Your task to perform on an android device: Go to calendar. Show me events next week Image 0: 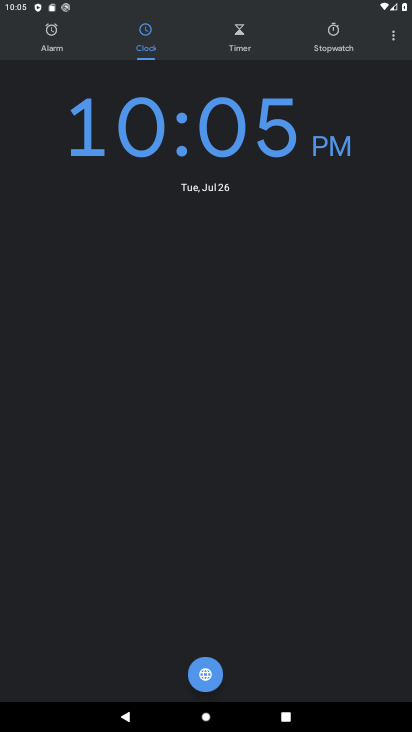
Step 0: task complete